Your task to perform on an android device: Open wifi settings Image 0: 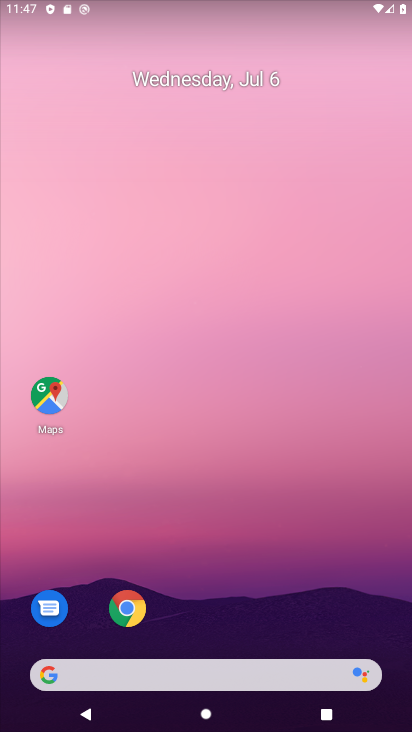
Step 0: click (270, 679)
Your task to perform on an android device: Open wifi settings Image 1: 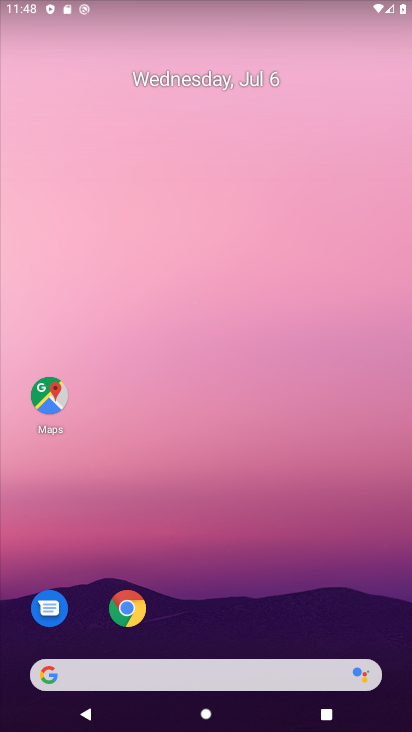
Step 1: drag from (378, 4) to (175, 589)
Your task to perform on an android device: Open wifi settings Image 2: 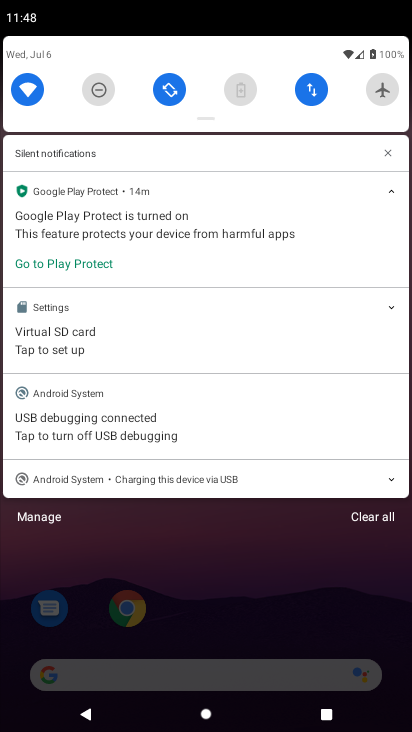
Step 2: click (34, 88)
Your task to perform on an android device: Open wifi settings Image 3: 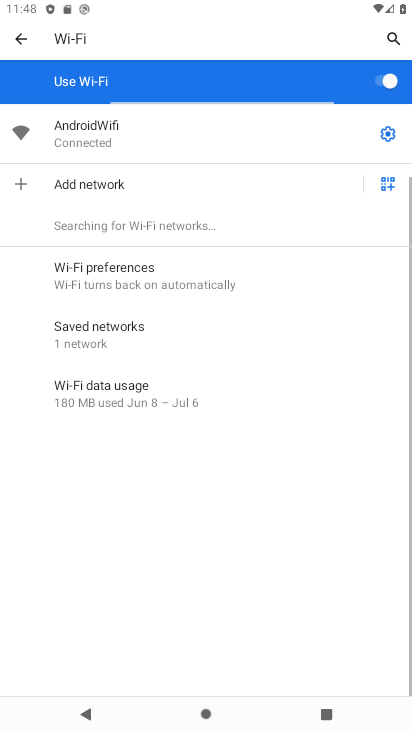
Step 3: task complete